Your task to perform on an android device: all mails in gmail Image 0: 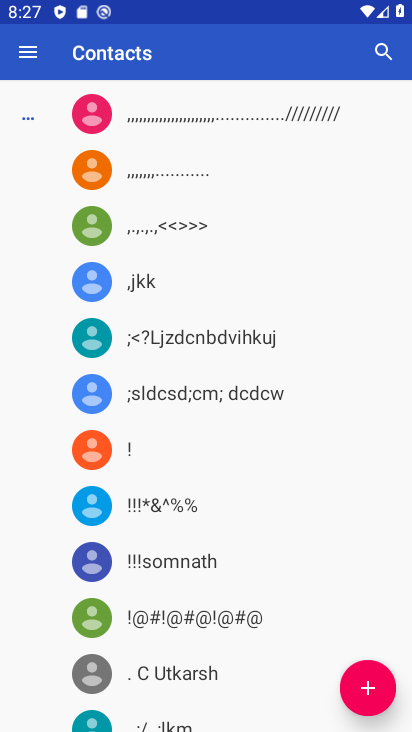
Step 0: press home button
Your task to perform on an android device: all mails in gmail Image 1: 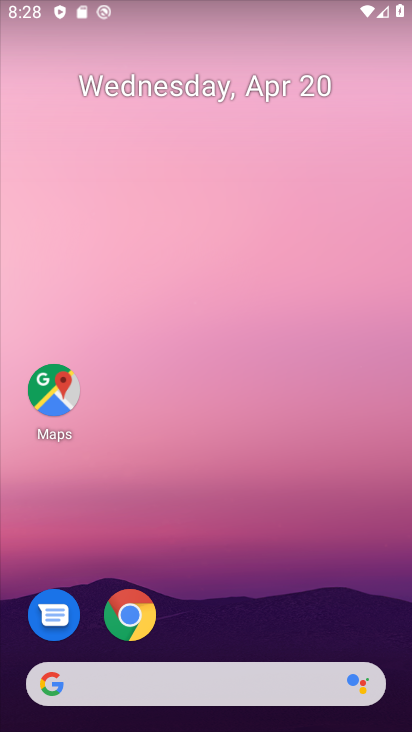
Step 1: drag from (17, 676) to (164, 221)
Your task to perform on an android device: all mails in gmail Image 2: 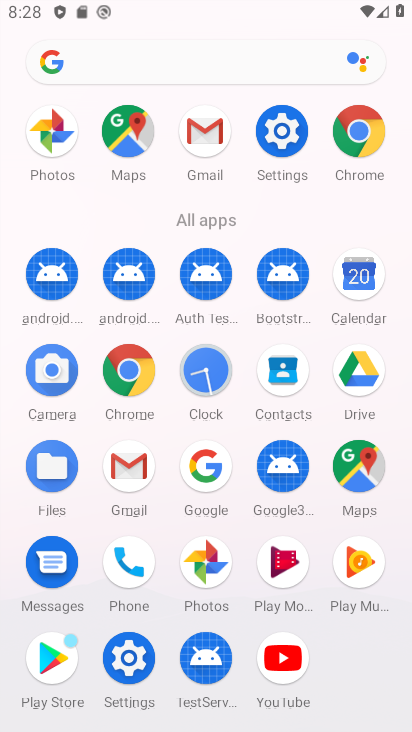
Step 2: click (133, 471)
Your task to perform on an android device: all mails in gmail Image 3: 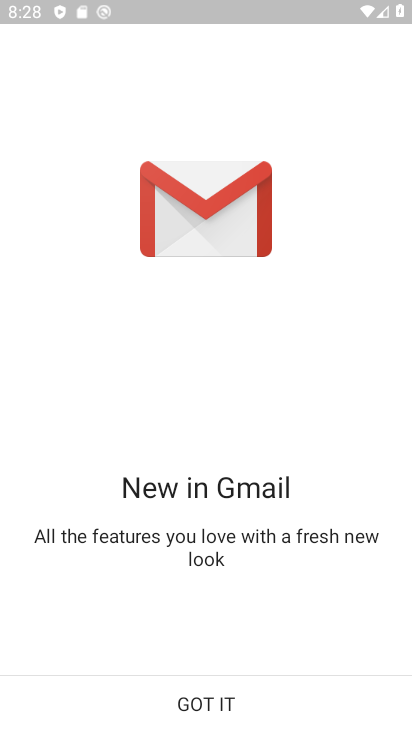
Step 3: click (237, 689)
Your task to perform on an android device: all mails in gmail Image 4: 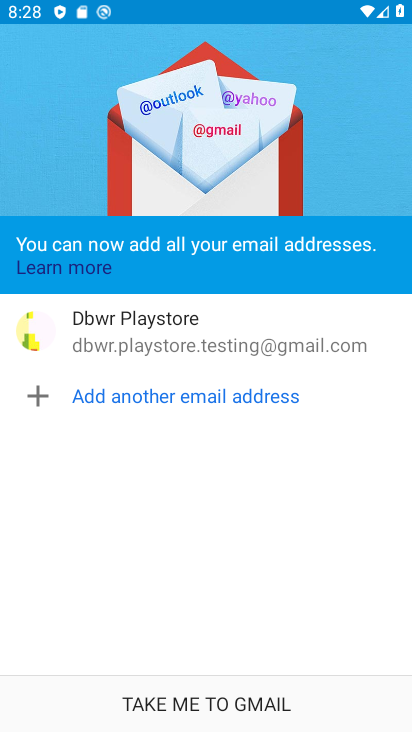
Step 4: click (281, 705)
Your task to perform on an android device: all mails in gmail Image 5: 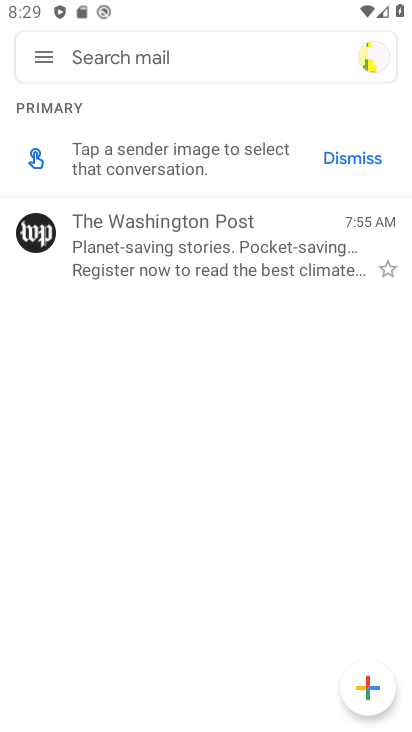
Step 5: click (51, 61)
Your task to perform on an android device: all mails in gmail Image 6: 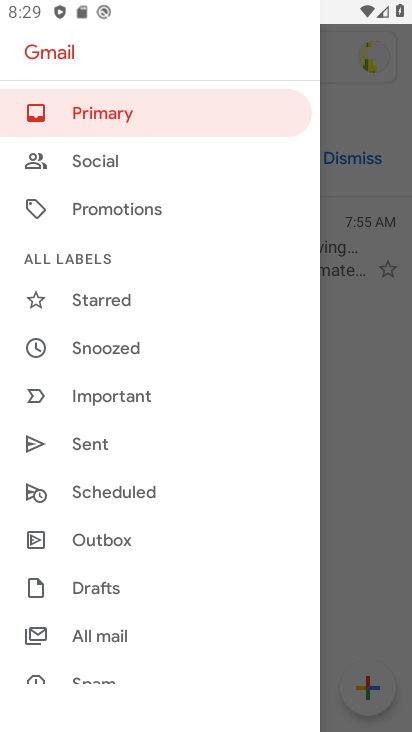
Step 6: click (156, 641)
Your task to perform on an android device: all mails in gmail Image 7: 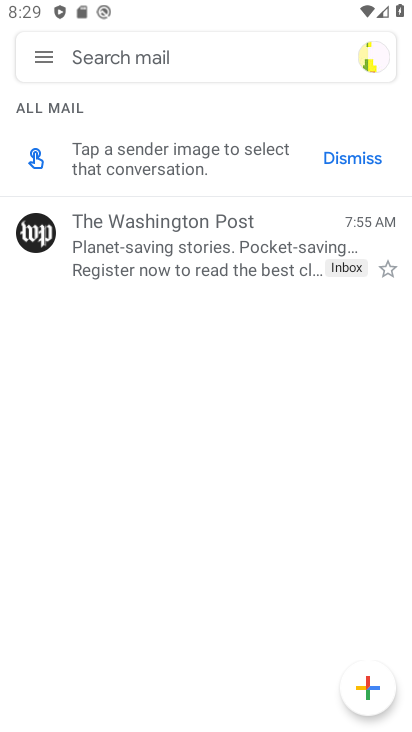
Step 7: task complete